Your task to perform on an android device: turn off airplane mode Image 0: 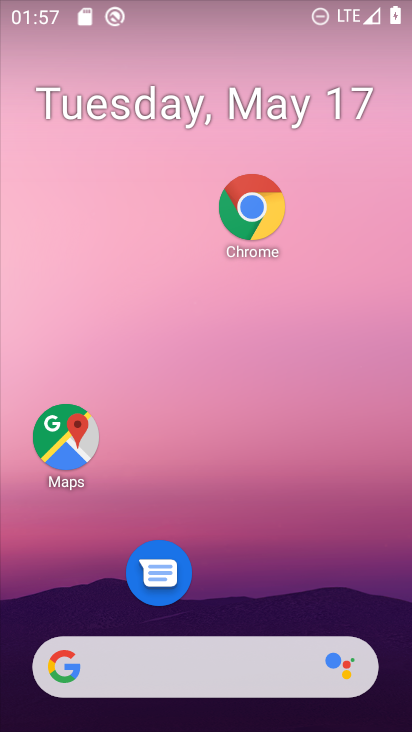
Step 0: drag from (297, 647) to (287, 10)
Your task to perform on an android device: turn off airplane mode Image 1: 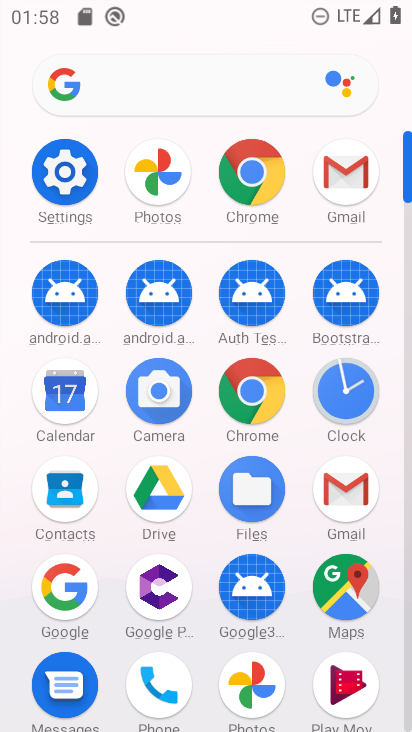
Step 1: click (59, 174)
Your task to perform on an android device: turn off airplane mode Image 2: 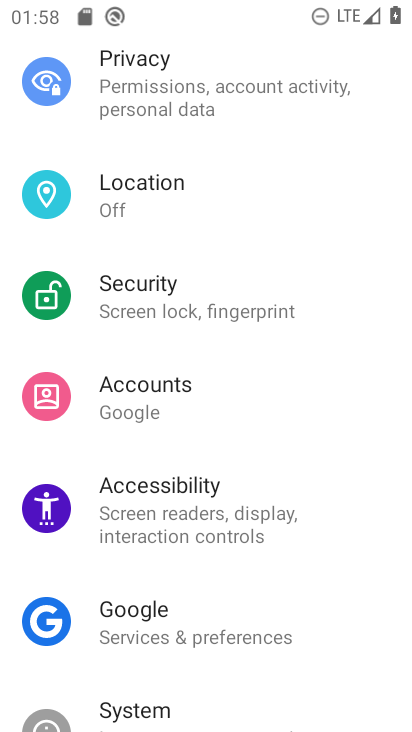
Step 2: drag from (218, 125) to (230, 728)
Your task to perform on an android device: turn off airplane mode Image 3: 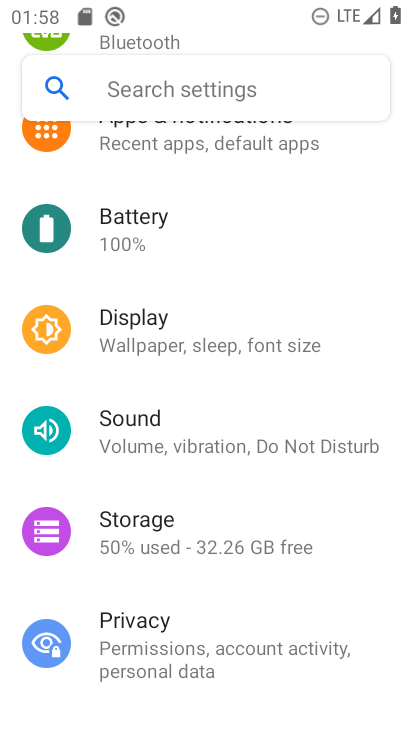
Step 3: drag from (137, 164) to (253, 724)
Your task to perform on an android device: turn off airplane mode Image 4: 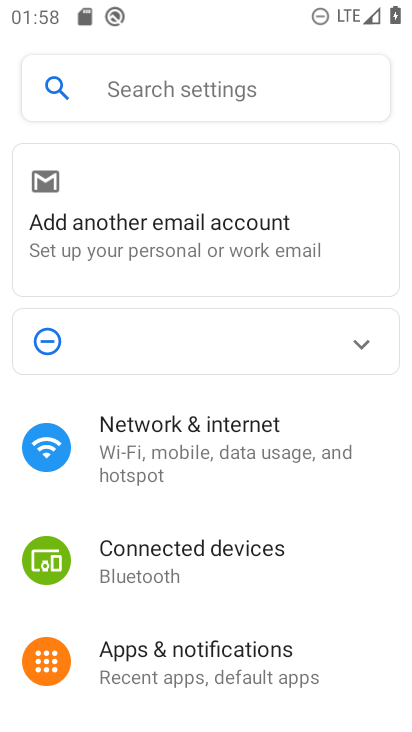
Step 4: click (141, 443)
Your task to perform on an android device: turn off airplane mode Image 5: 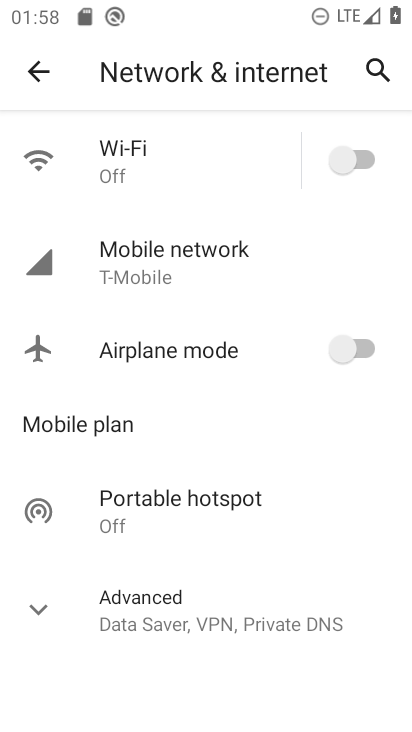
Step 5: task complete